Your task to perform on an android device: turn off smart reply in the gmail app Image 0: 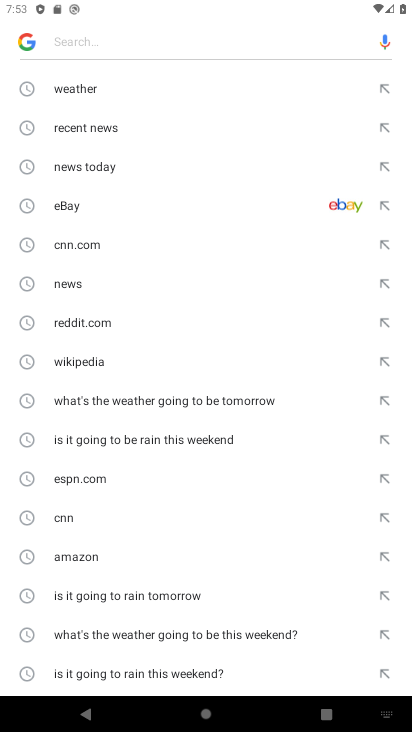
Step 0: press home button
Your task to perform on an android device: turn off smart reply in the gmail app Image 1: 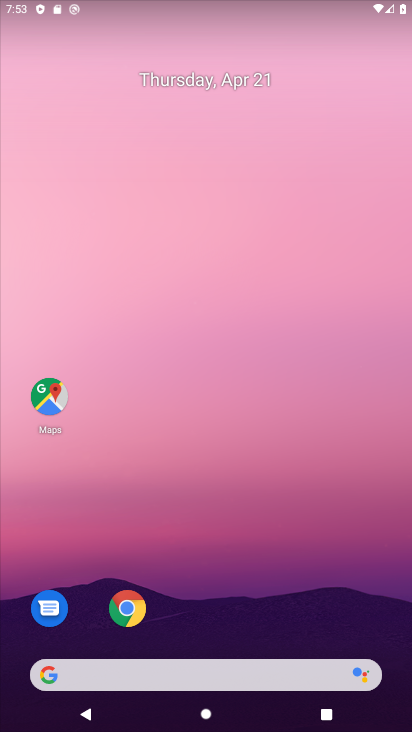
Step 1: drag from (171, 521) to (231, 211)
Your task to perform on an android device: turn off smart reply in the gmail app Image 2: 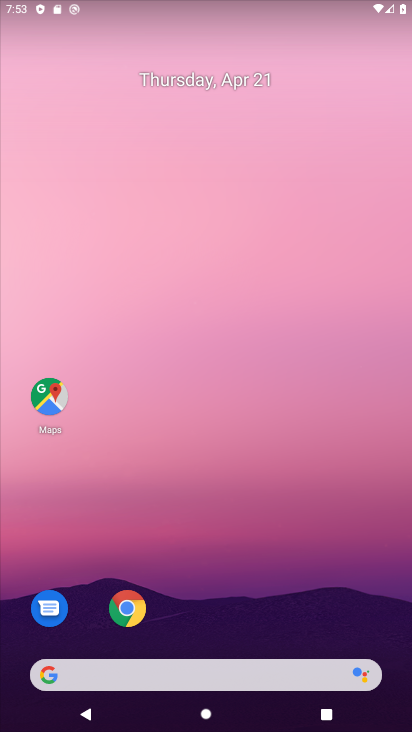
Step 2: drag from (175, 636) to (313, 17)
Your task to perform on an android device: turn off smart reply in the gmail app Image 3: 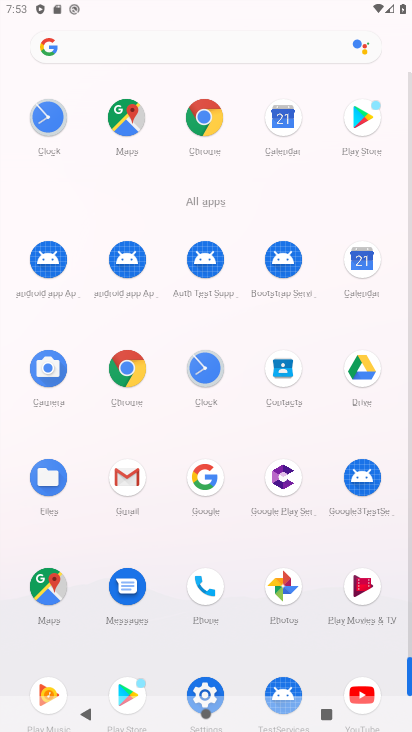
Step 3: click (120, 493)
Your task to perform on an android device: turn off smart reply in the gmail app Image 4: 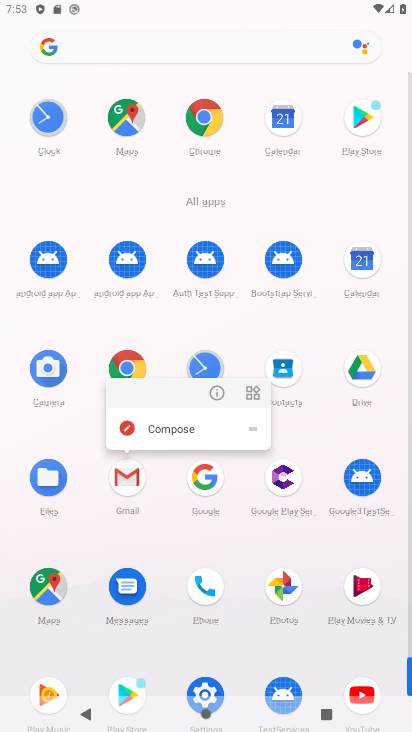
Step 4: click (117, 470)
Your task to perform on an android device: turn off smart reply in the gmail app Image 5: 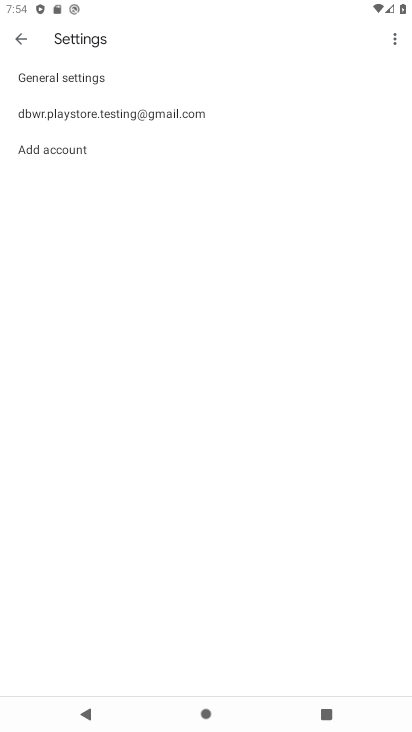
Step 5: click (88, 107)
Your task to perform on an android device: turn off smart reply in the gmail app Image 6: 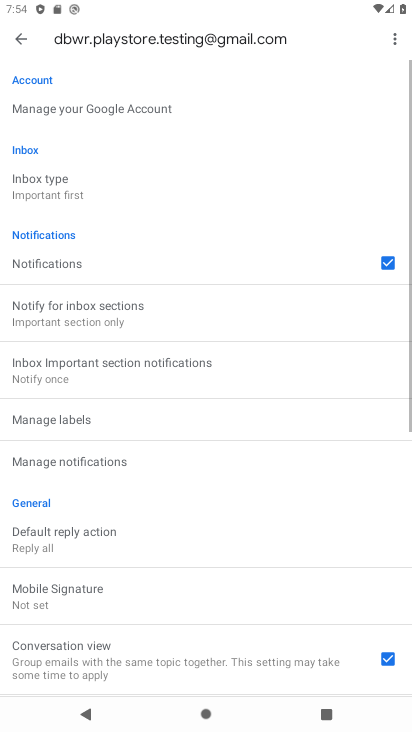
Step 6: drag from (128, 564) to (205, 204)
Your task to perform on an android device: turn off smart reply in the gmail app Image 7: 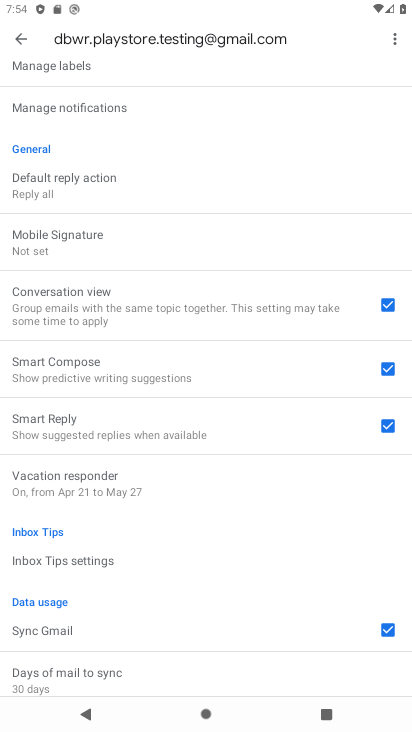
Step 7: drag from (176, 607) to (222, 325)
Your task to perform on an android device: turn off smart reply in the gmail app Image 8: 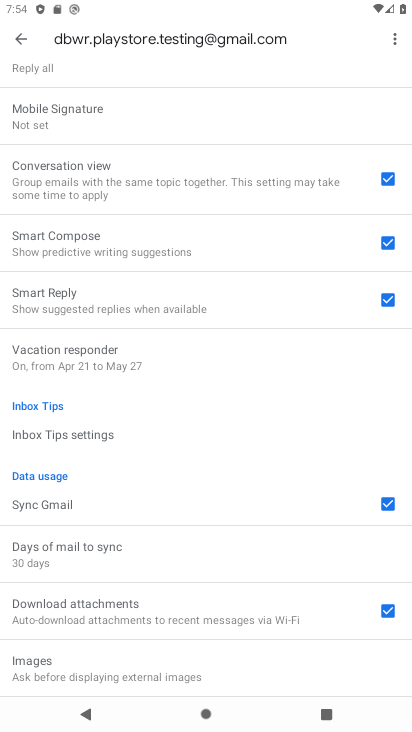
Step 8: drag from (165, 621) to (215, 195)
Your task to perform on an android device: turn off smart reply in the gmail app Image 9: 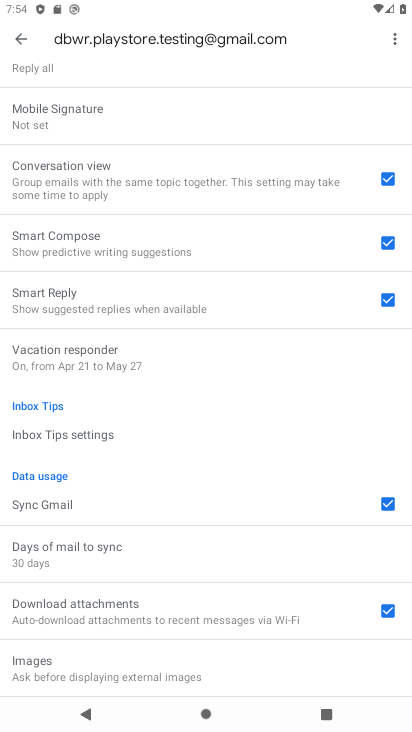
Step 9: click (373, 242)
Your task to perform on an android device: turn off smart reply in the gmail app Image 10: 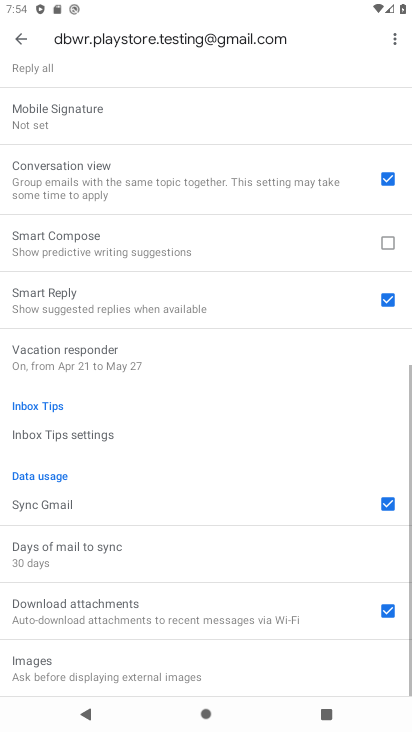
Step 10: click (381, 301)
Your task to perform on an android device: turn off smart reply in the gmail app Image 11: 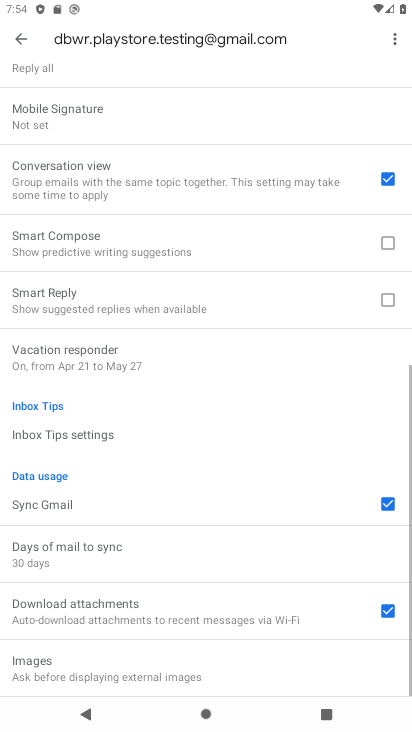
Step 11: task complete